Your task to perform on an android device: Go to eBay Image 0: 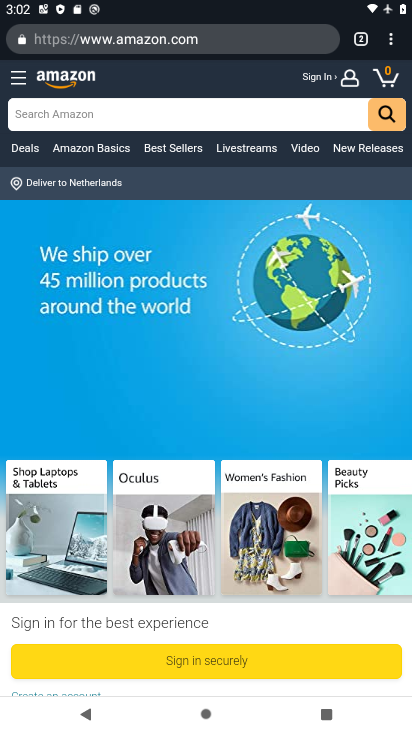
Step 0: press home button
Your task to perform on an android device: Go to eBay Image 1: 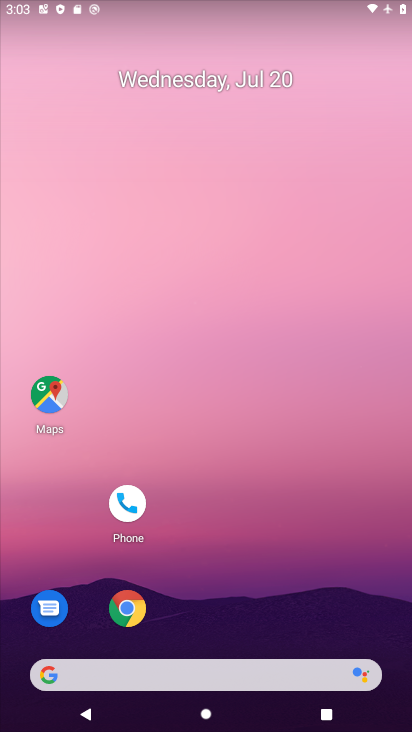
Step 1: drag from (272, 571) to (219, 69)
Your task to perform on an android device: Go to eBay Image 2: 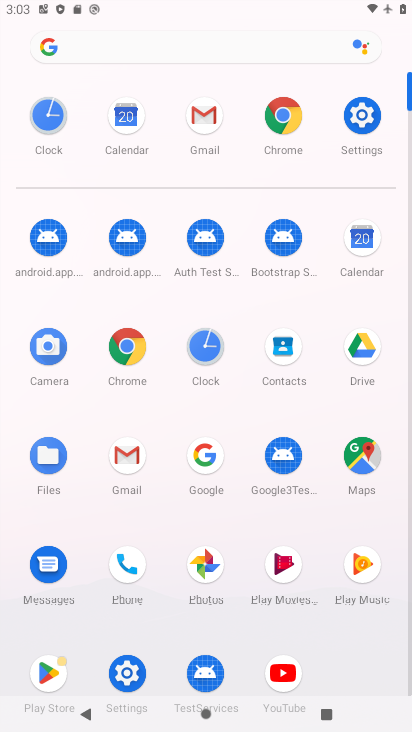
Step 2: click (280, 111)
Your task to perform on an android device: Go to eBay Image 3: 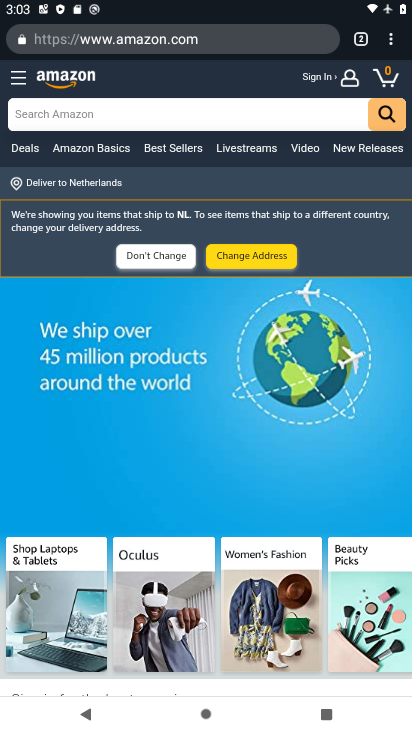
Step 3: click (98, 40)
Your task to perform on an android device: Go to eBay Image 4: 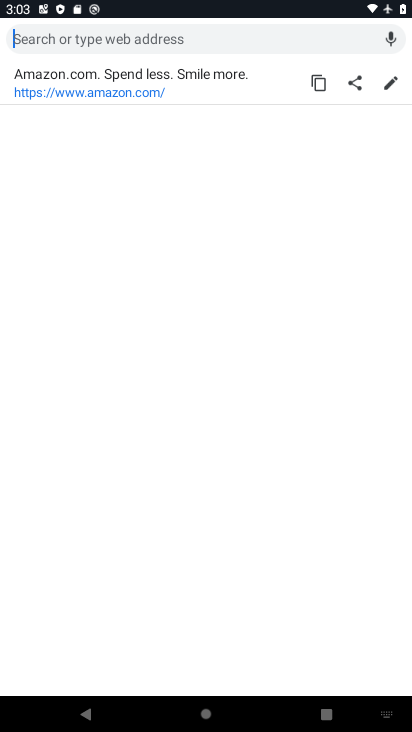
Step 4: type "ebay"
Your task to perform on an android device: Go to eBay Image 5: 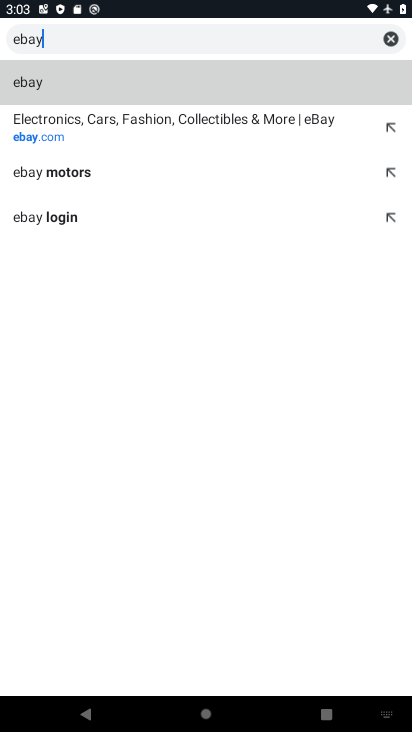
Step 5: click (39, 131)
Your task to perform on an android device: Go to eBay Image 6: 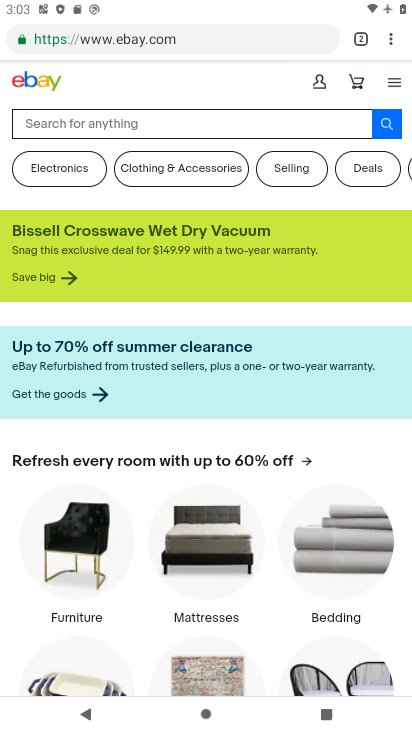
Step 6: task complete